Your task to perform on an android device: Set the phone to "Do not disturb". Image 0: 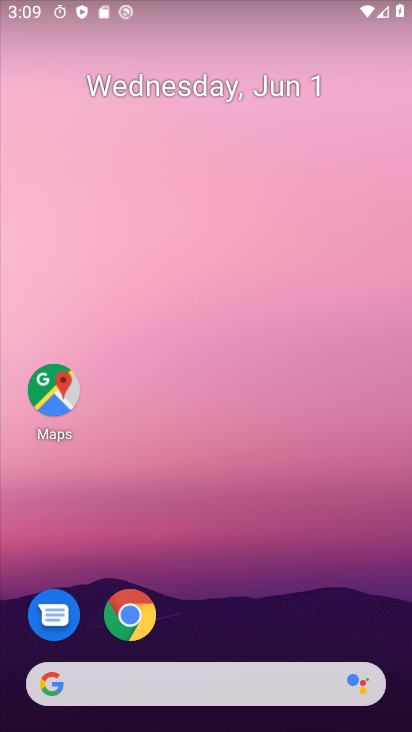
Step 0: drag from (297, 676) to (314, 4)
Your task to perform on an android device: Set the phone to "Do not disturb". Image 1: 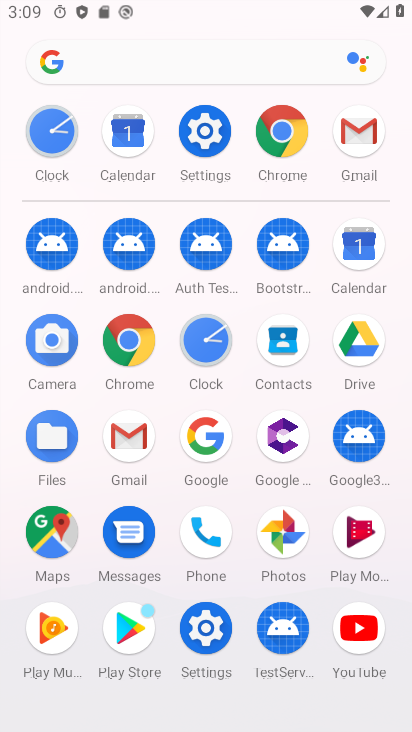
Step 1: click (200, 139)
Your task to perform on an android device: Set the phone to "Do not disturb". Image 2: 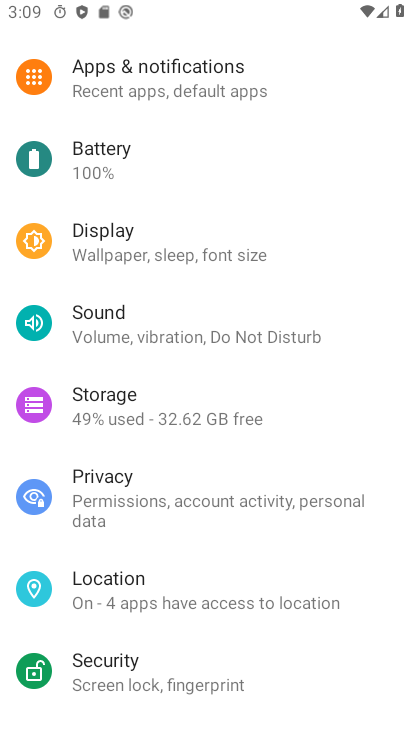
Step 2: click (176, 328)
Your task to perform on an android device: Set the phone to "Do not disturb". Image 3: 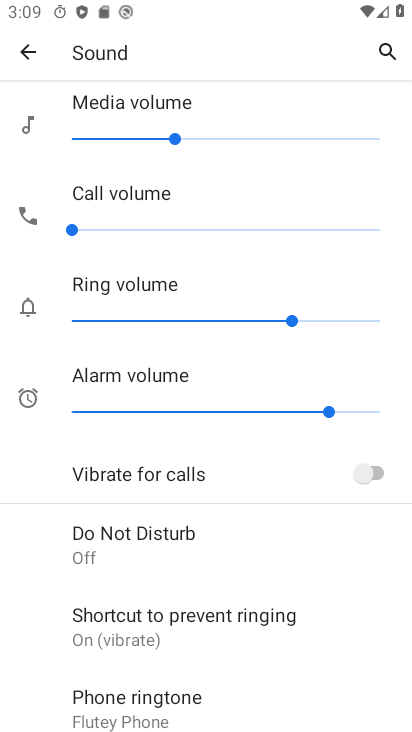
Step 3: click (188, 550)
Your task to perform on an android device: Set the phone to "Do not disturb". Image 4: 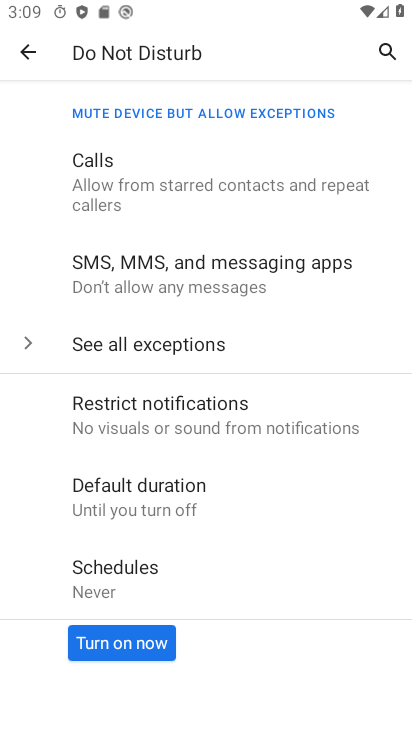
Step 4: click (154, 643)
Your task to perform on an android device: Set the phone to "Do not disturb". Image 5: 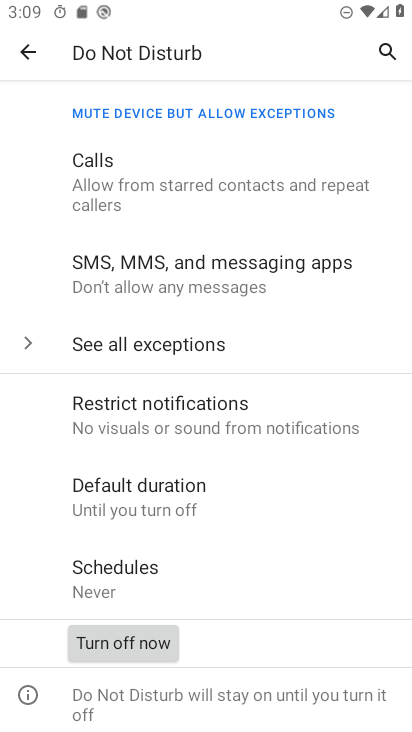
Step 5: task complete